Your task to perform on an android device: Go to location settings Image 0: 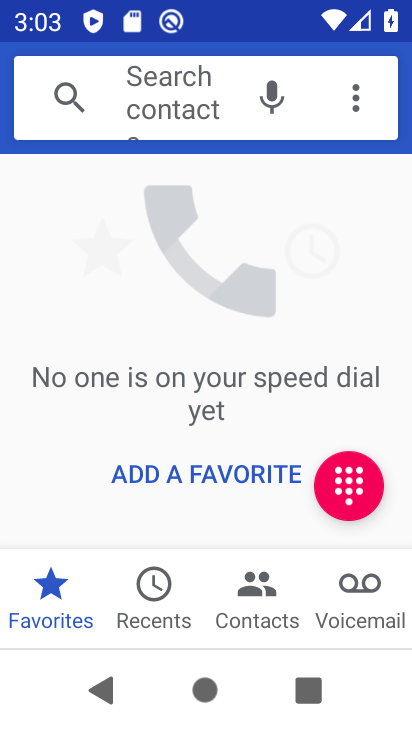
Step 0: press home button
Your task to perform on an android device: Go to location settings Image 1: 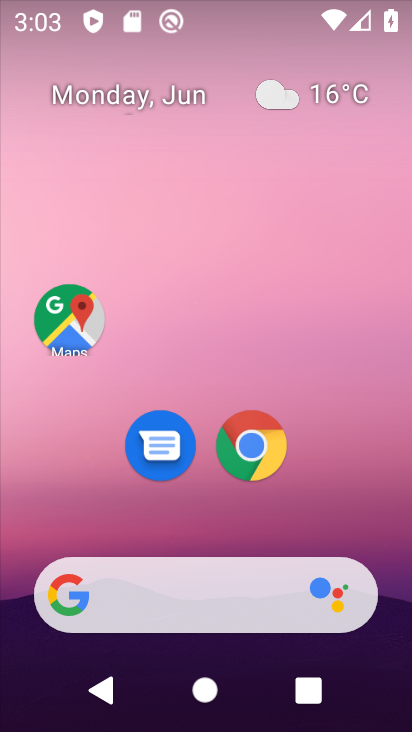
Step 1: drag from (356, 267) to (350, 220)
Your task to perform on an android device: Go to location settings Image 2: 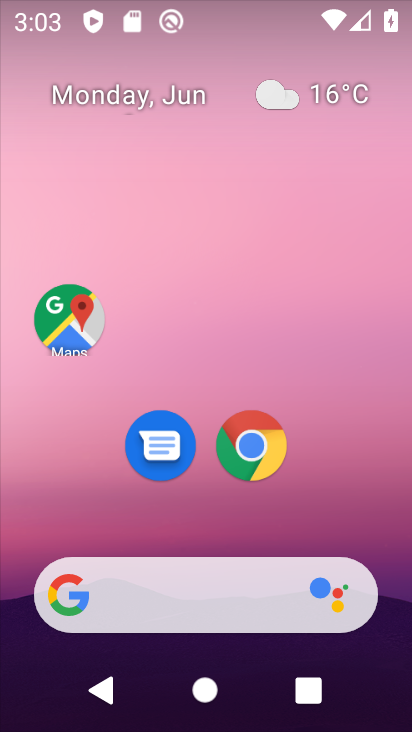
Step 2: drag from (165, 567) to (218, 239)
Your task to perform on an android device: Go to location settings Image 3: 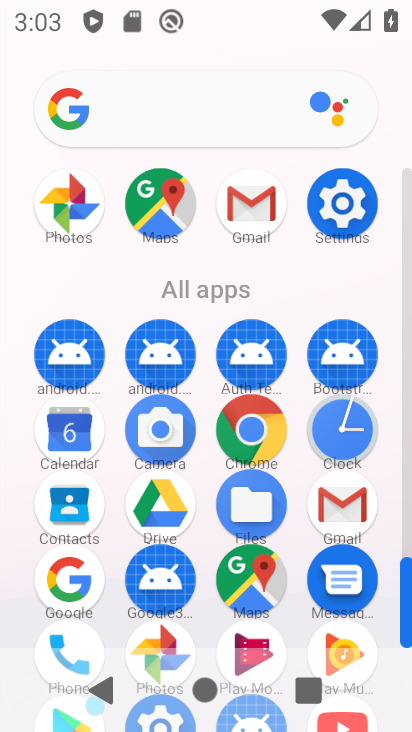
Step 3: click (339, 170)
Your task to perform on an android device: Go to location settings Image 4: 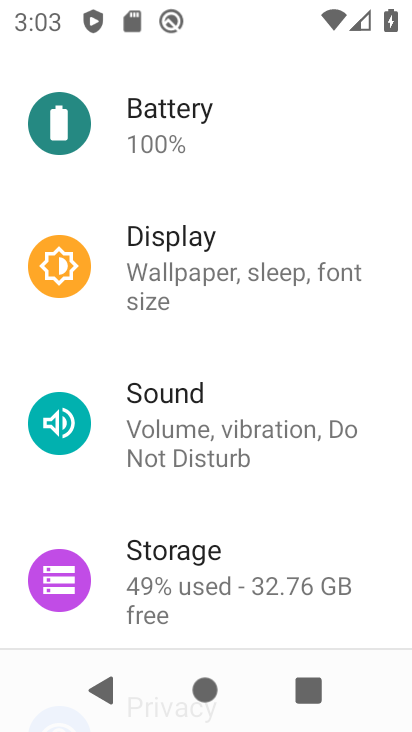
Step 4: drag from (193, 548) to (271, 117)
Your task to perform on an android device: Go to location settings Image 5: 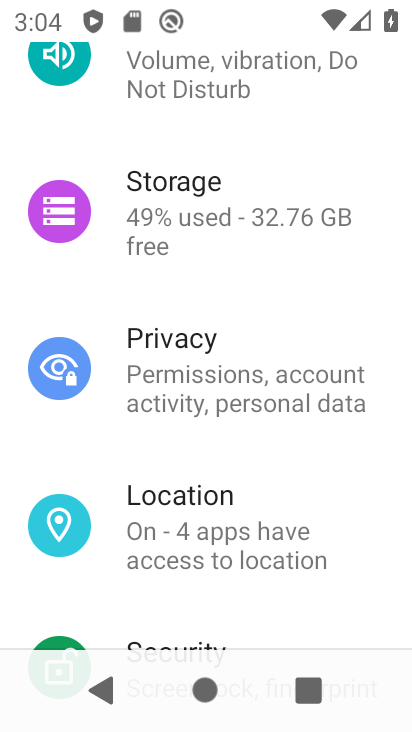
Step 5: drag from (217, 431) to (244, 88)
Your task to perform on an android device: Go to location settings Image 6: 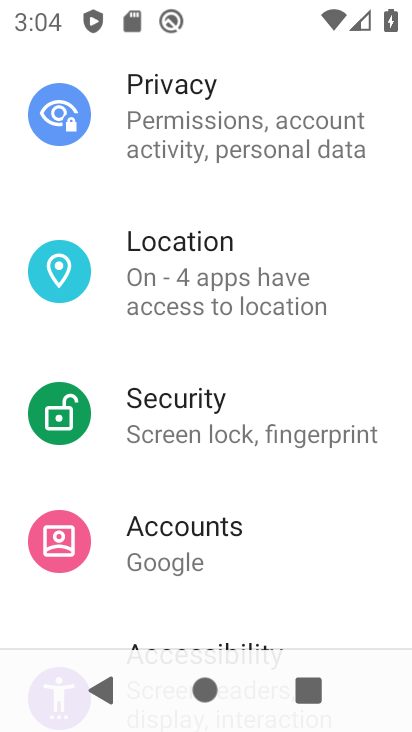
Step 6: click (198, 255)
Your task to perform on an android device: Go to location settings Image 7: 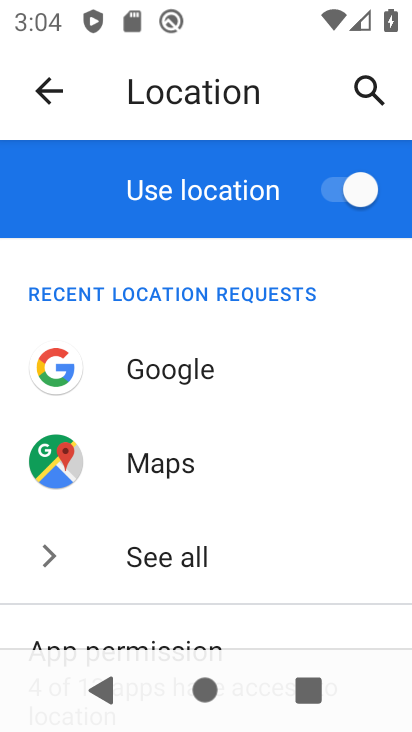
Step 7: task complete